Your task to perform on an android device: Open my contact list Image 0: 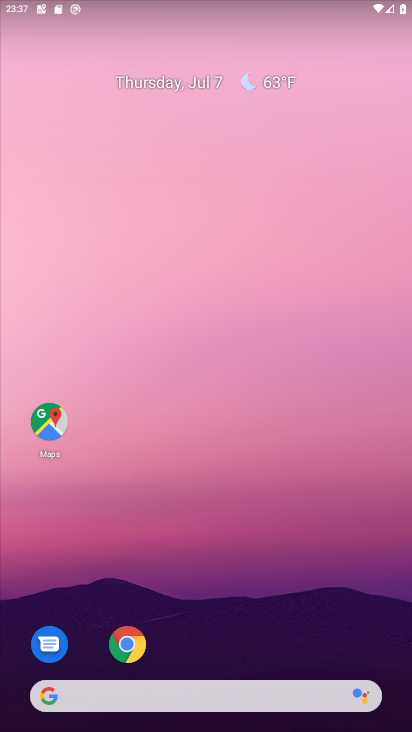
Step 0: drag from (237, 711) to (234, 83)
Your task to perform on an android device: Open my contact list Image 1: 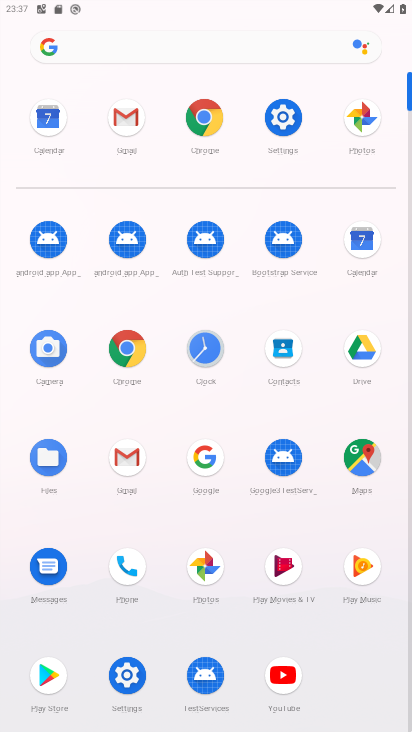
Step 1: click (288, 348)
Your task to perform on an android device: Open my contact list Image 2: 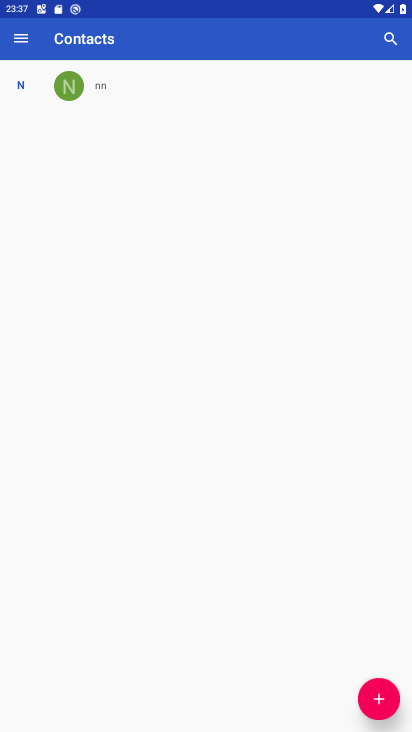
Step 2: task complete